Your task to perform on an android device: Clear all items from cart on costco. Search for "asus rog" on costco, select the first entry, and add it to the cart. Image 0: 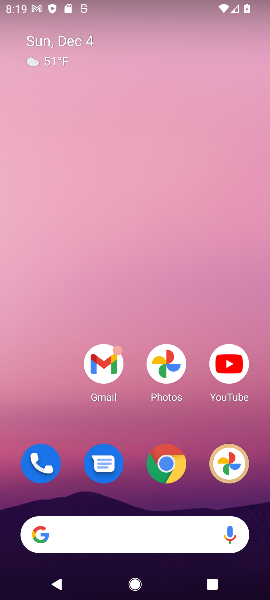
Step 0: click (146, 529)
Your task to perform on an android device: Clear all items from cart on costco. Search for "asus rog" on costco, select the first entry, and add it to the cart. Image 1: 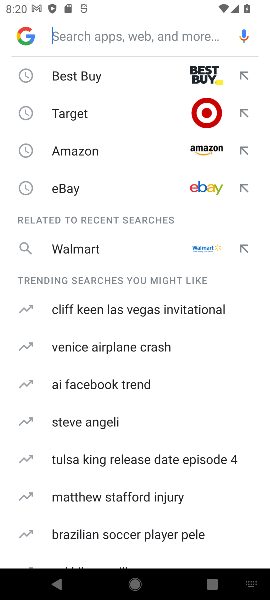
Step 1: type "costco.com"
Your task to perform on an android device: Clear all items from cart on costco. Search for "asus rog" on costco, select the first entry, and add it to the cart. Image 2: 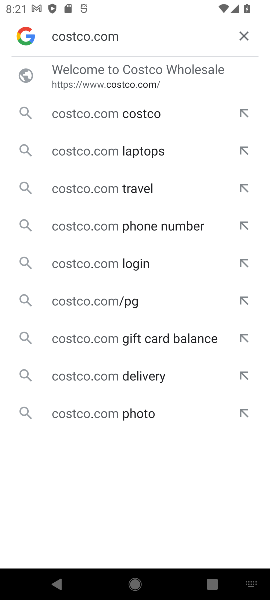
Step 2: click (112, 67)
Your task to perform on an android device: Clear all items from cart on costco. Search for "asus rog" on costco, select the first entry, and add it to the cart. Image 3: 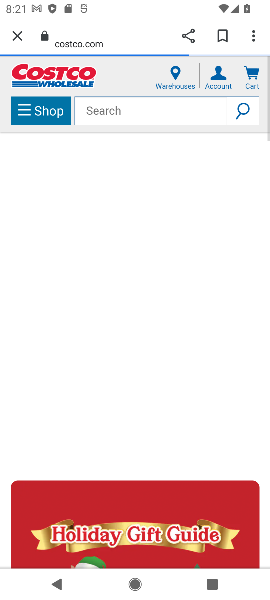
Step 3: task complete